Your task to perform on an android device: What's the weather today? Image 0: 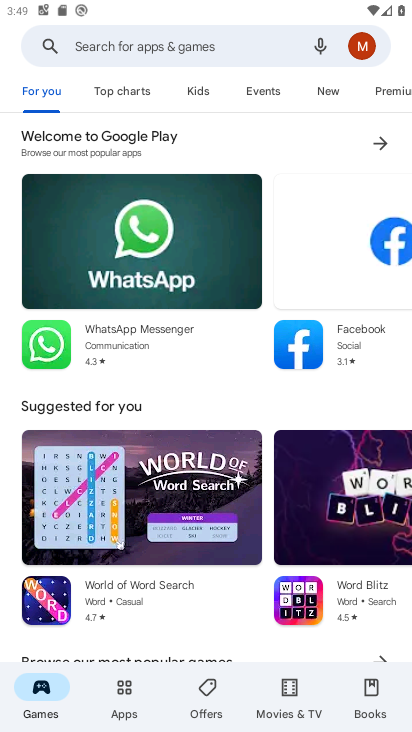
Step 0: press home button
Your task to perform on an android device: What's the weather today? Image 1: 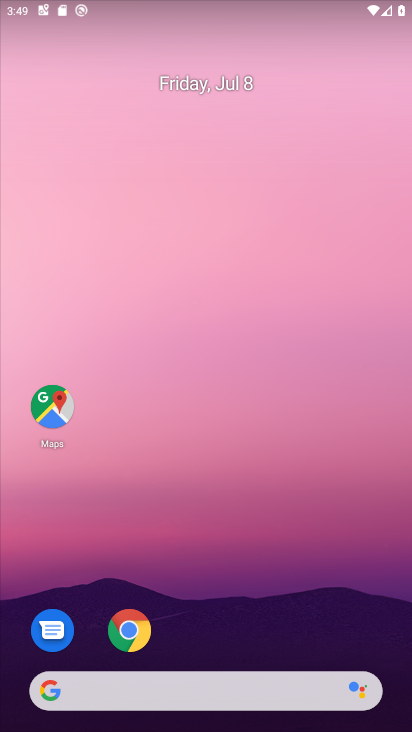
Step 1: drag from (331, 583) to (350, 64)
Your task to perform on an android device: What's the weather today? Image 2: 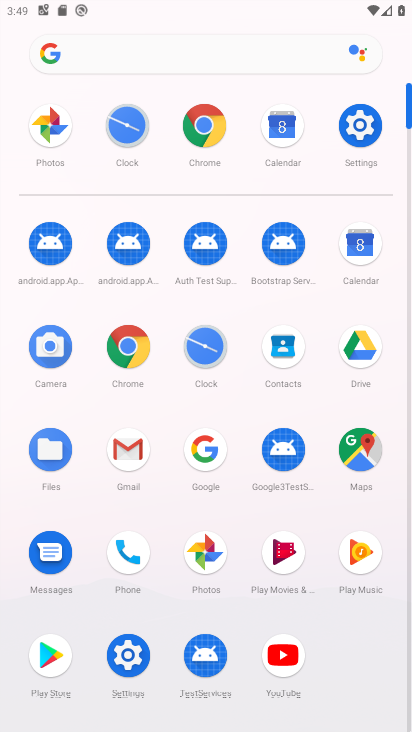
Step 2: click (199, 122)
Your task to perform on an android device: What's the weather today? Image 3: 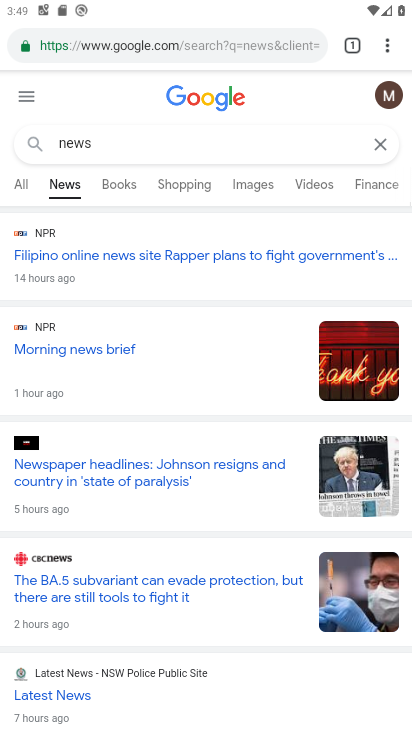
Step 3: click (156, 140)
Your task to perform on an android device: What's the weather today? Image 4: 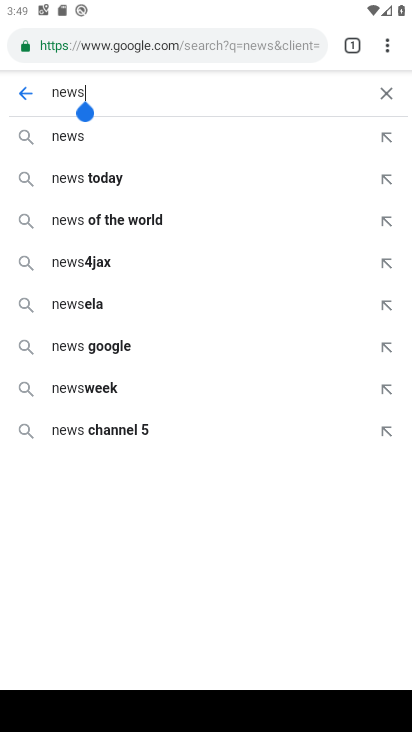
Step 4: click (390, 94)
Your task to perform on an android device: What's the weather today? Image 5: 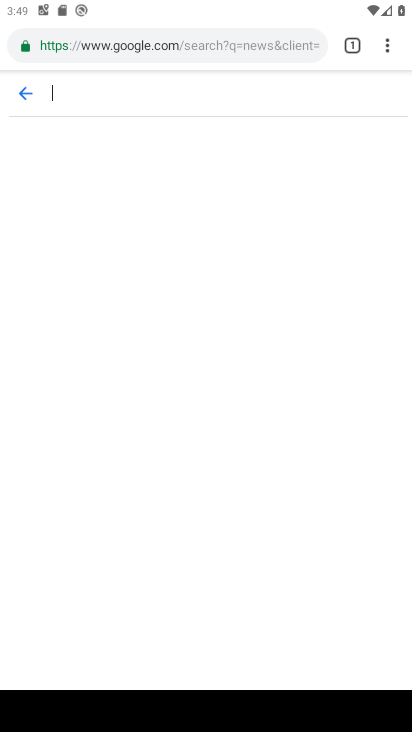
Step 5: type "weather"
Your task to perform on an android device: What's the weather today? Image 6: 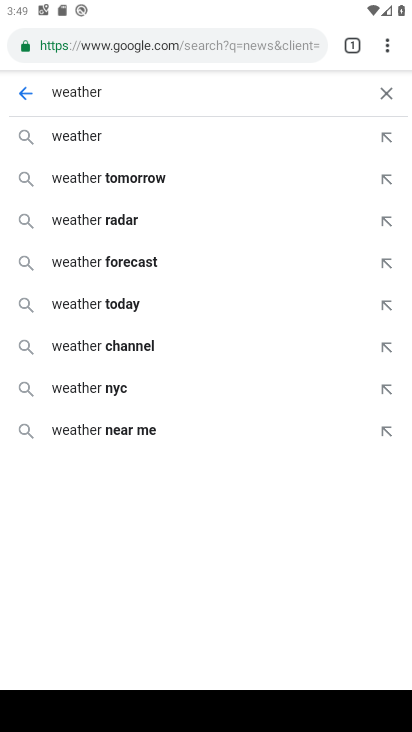
Step 6: click (91, 128)
Your task to perform on an android device: What's the weather today? Image 7: 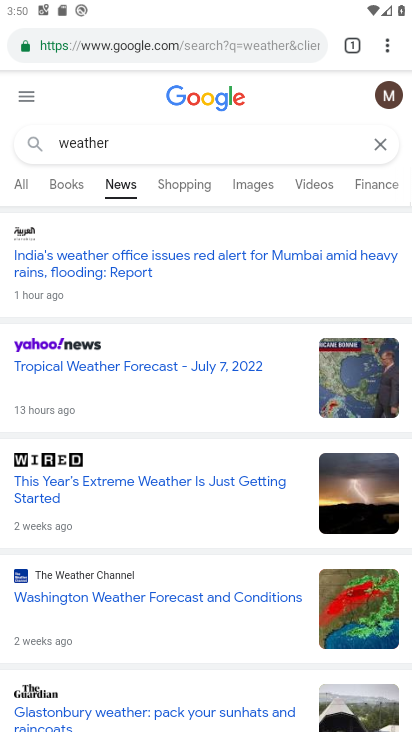
Step 7: click (18, 178)
Your task to perform on an android device: What's the weather today? Image 8: 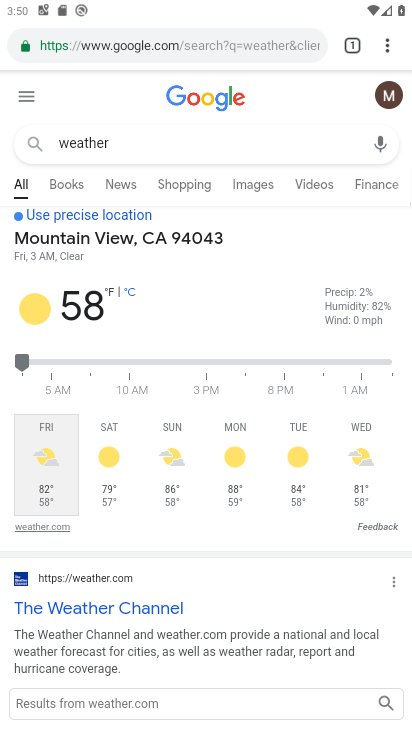
Step 8: task complete